Your task to perform on an android device: Search for sushi restaurants on Maps Image 0: 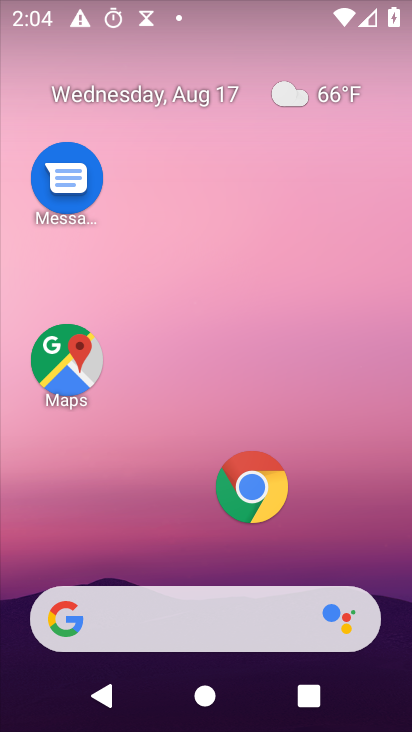
Step 0: press home button
Your task to perform on an android device: Search for sushi restaurants on Maps Image 1: 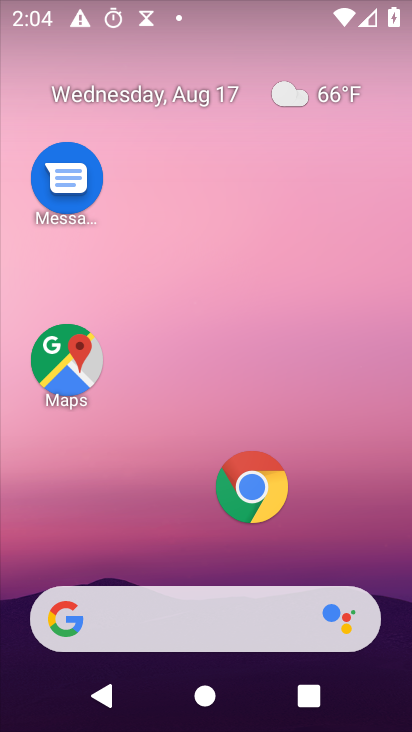
Step 1: click (70, 382)
Your task to perform on an android device: Search for sushi restaurants on Maps Image 2: 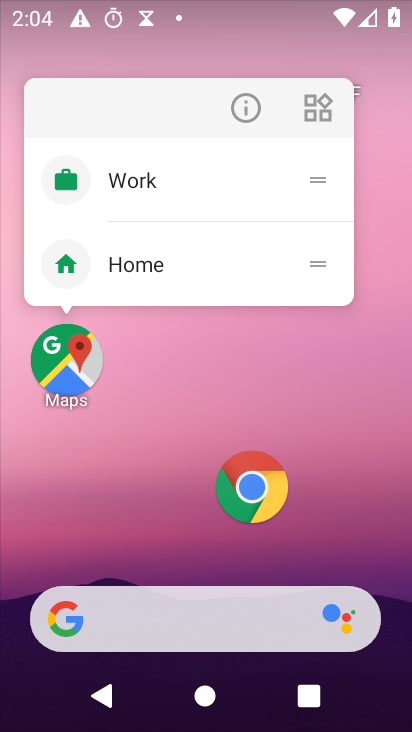
Step 2: drag from (91, 377) to (138, 407)
Your task to perform on an android device: Search for sushi restaurants on Maps Image 3: 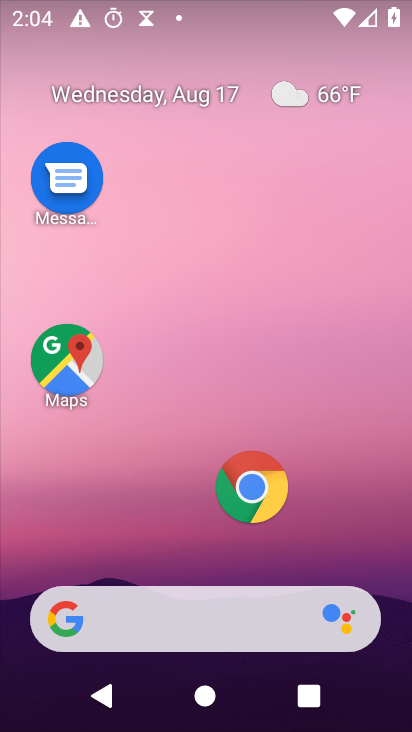
Step 3: click (50, 377)
Your task to perform on an android device: Search for sushi restaurants on Maps Image 4: 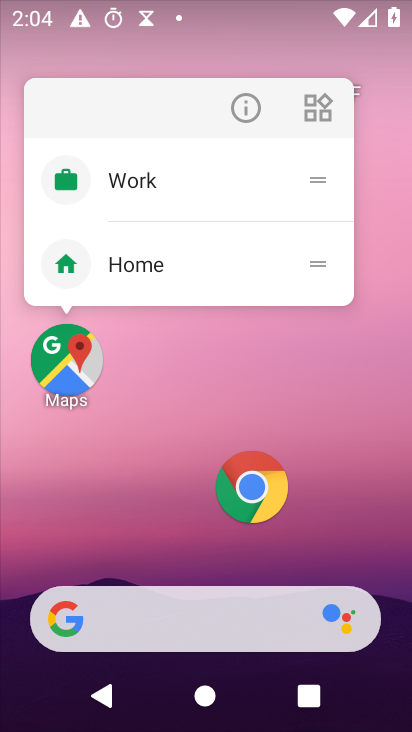
Step 4: click (43, 380)
Your task to perform on an android device: Search for sushi restaurants on Maps Image 5: 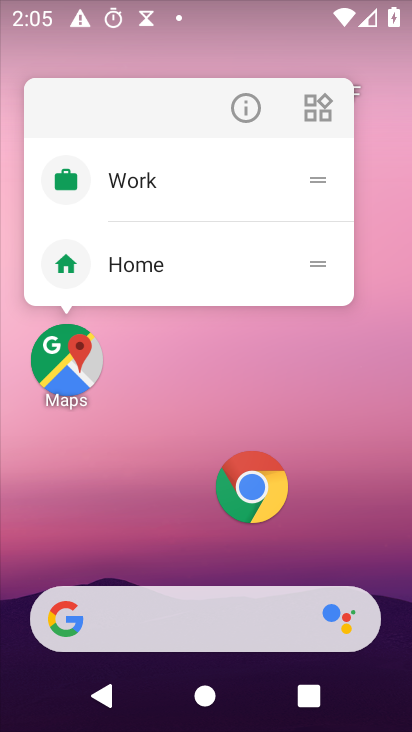
Step 5: click (56, 358)
Your task to perform on an android device: Search for sushi restaurants on Maps Image 6: 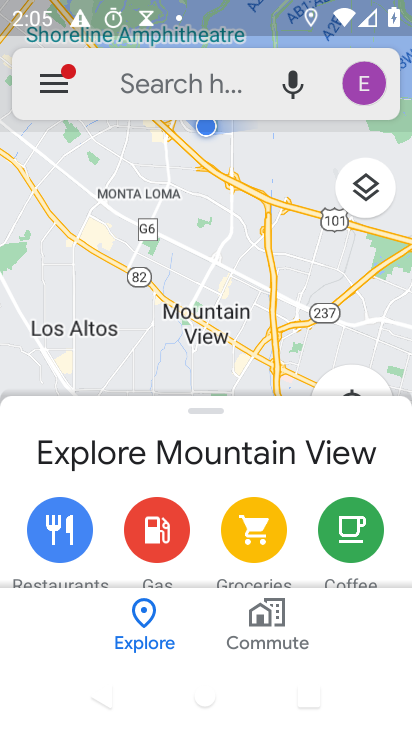
Step 6: click (179, 94)
Your task to perform on an android device: Search for sushi restaurants on Maps Image 7: 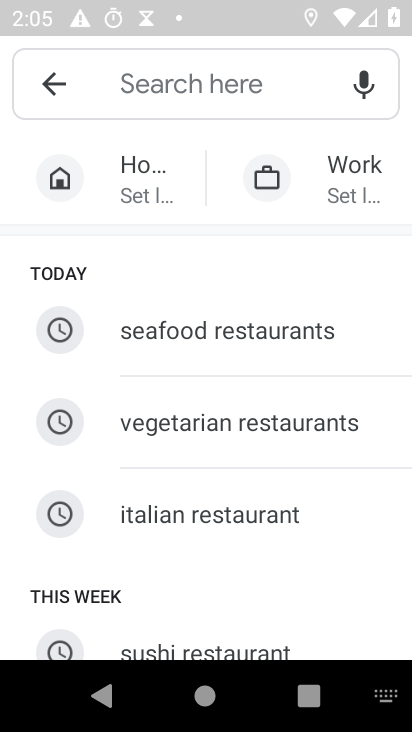
Step 7: click (147, 654)
Your task to perform on an android device: Search for sushi restaurants on Maps Image 8: 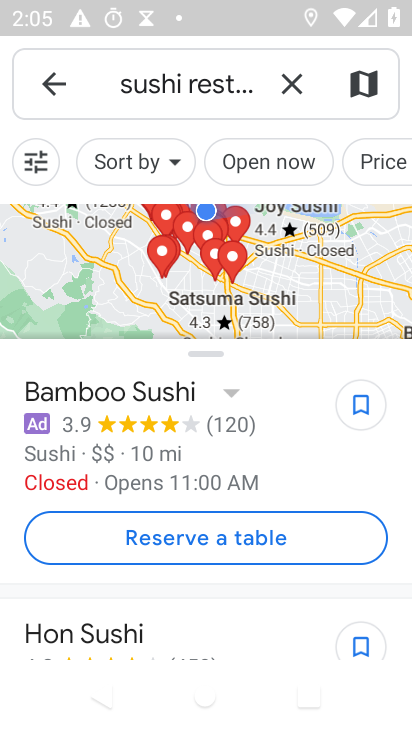
Step 8: task complete